Your task to perform on an android device: Look up the best rated kitchen knives on Amazon. Image 0: 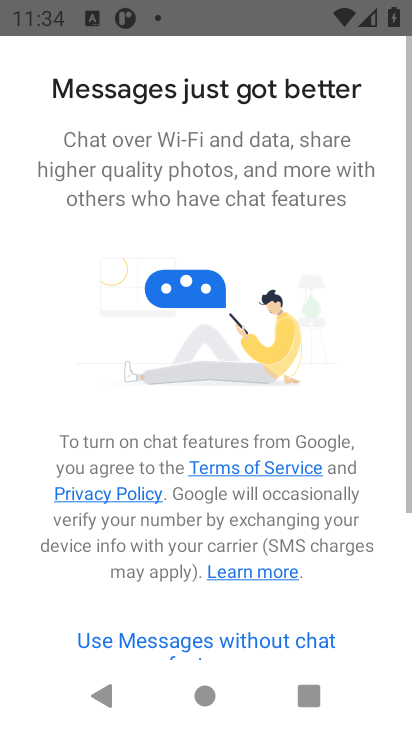
Step 0: press home button
Your task to perform on an android device: Look up the best rated kitchen knives on Amazon. Image 1: 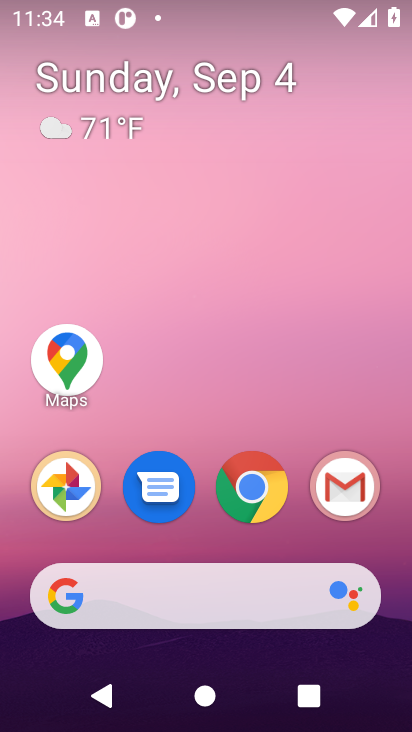
Step 1: click (247, 571)
Your task to perform on an android device: Look up the best rated kitchen knives on Amazon. Image 2: 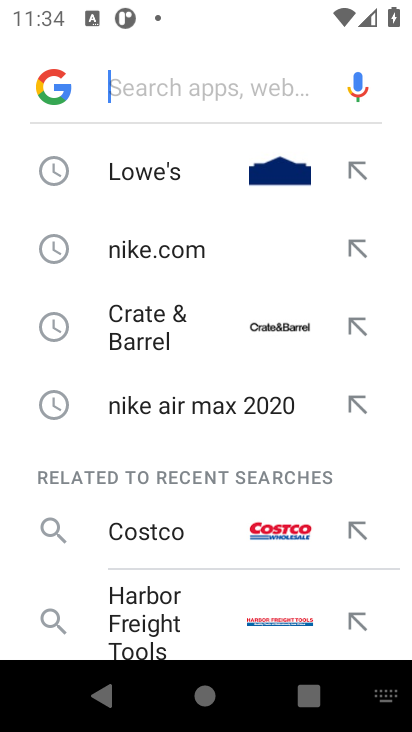
Step 2: click (57, 92)
Your task to perform on an android device: Look up the best rated kitchen knives on Amazon. Image 3: 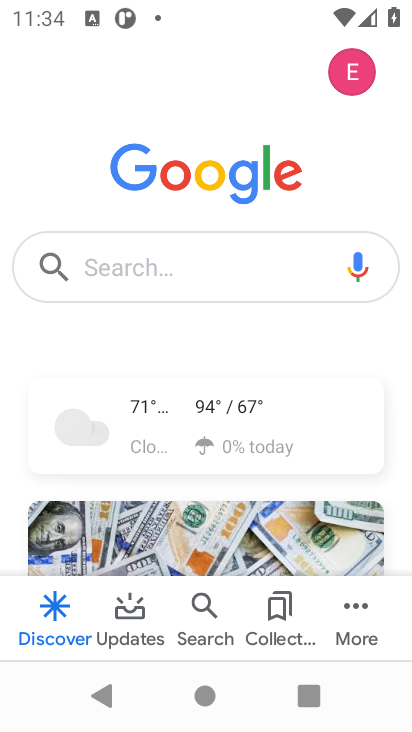
Step 3: click (200, 261)
Your task to perform on an android device: Look up the best rated kitchen knives on Amazon. Image 4: 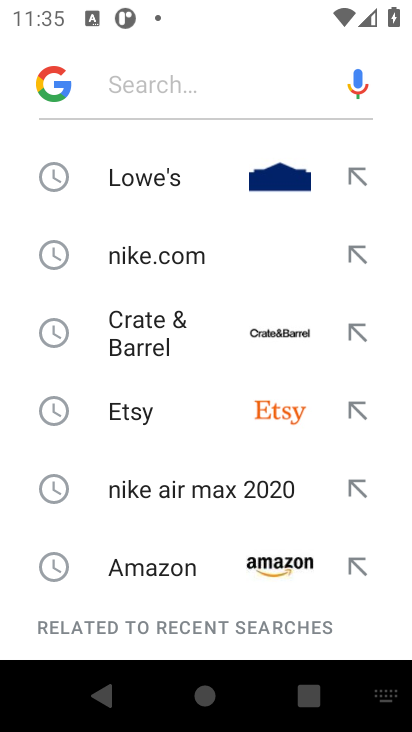
Step 4: click (267, 562)
Your task to perform on an android device: Look up the best rated kitchen knives on Amazon. Image 5: 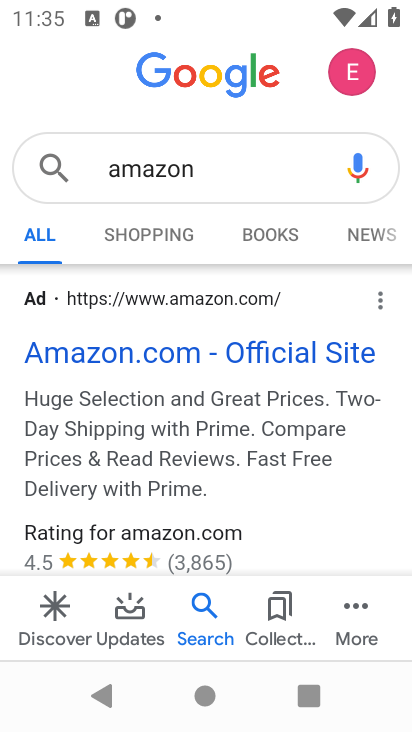
Step 5: click (215, 342)
Your task to perform on an android device: Look up the best rated kitchen knives on Amazon. Image 6: 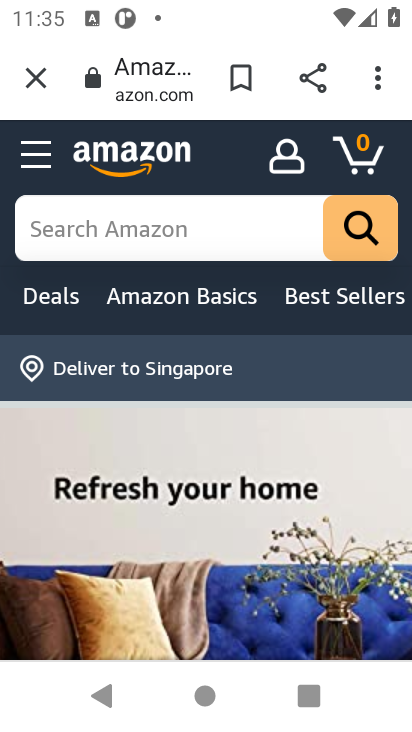
Step 6: click (246, 353)
Your task to perform on an android device: Look up the best rated kitchen knives on Amazon. Image 7: 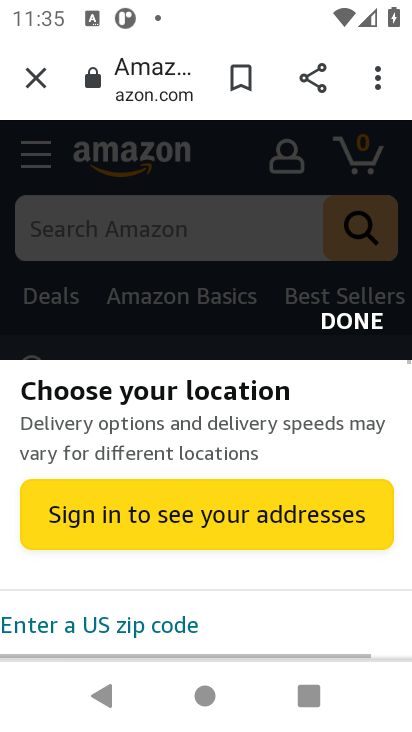
Step 7: click (197, 218)
Your task to perform on an android device: Look up the best rated kitchen knives on Amazon. Image 8: 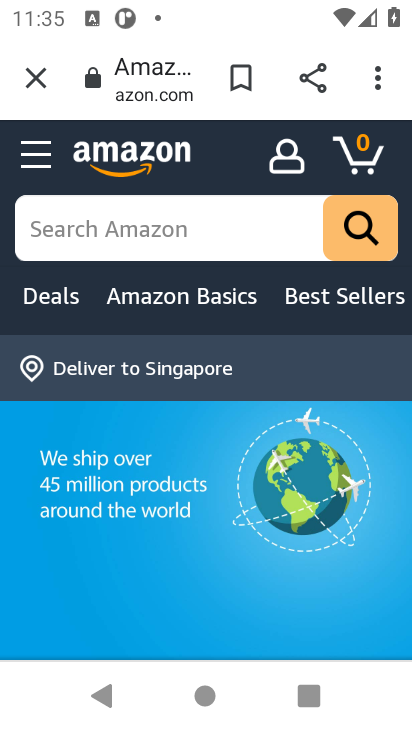
Step 8: click (225, 218)
Your task to perform on an android device: Look up the best rated kitchen knives on Amazon. Image 9: 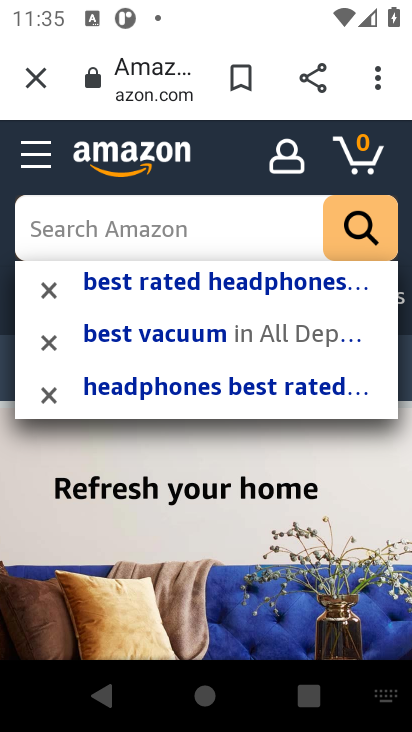
Step 9: type "kitchen knifes"
Your task to perform on an android device: Look up the best rated kitchen knives on Amazon. Image 10: 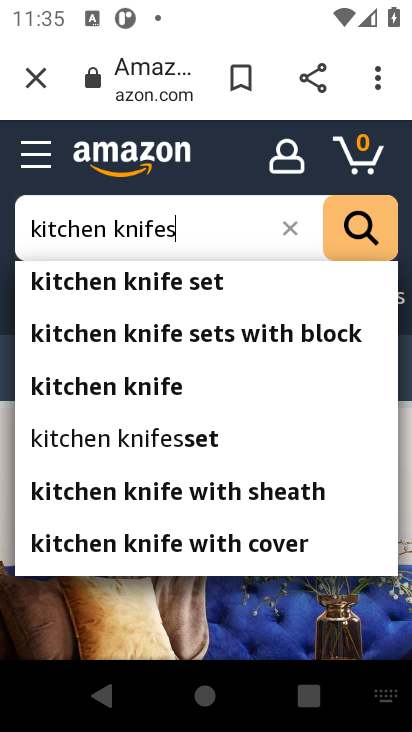
Step 10: click (77, 385)
Your task to perform on an android device: Look up the best rated kitchen knives on Amazon. Image 11: 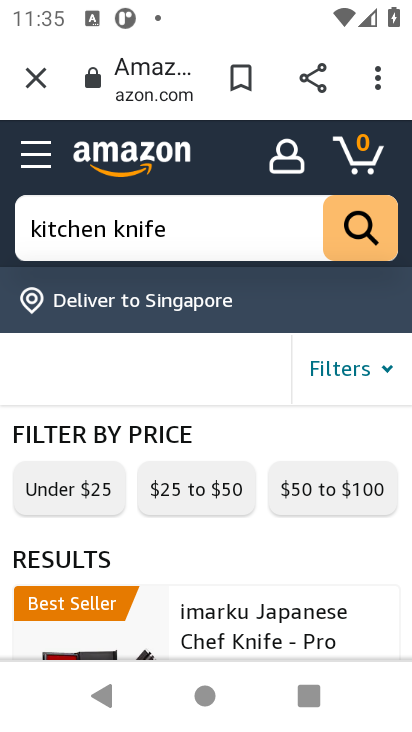
Step 11: task complete